Your task to perform on an android device: turn off javascript in the chrome app Image 0: 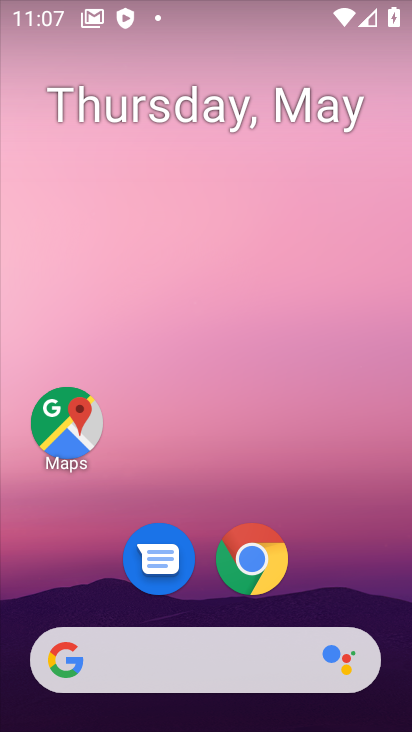
Step 0: click (248, 557)
Your task to perform on an android device: turn off javascript in the chrome app Image 1: 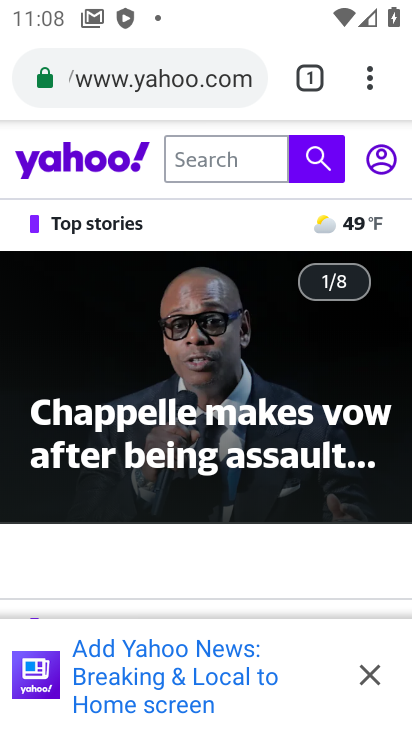
Step 1: click (369, 84)
Your task to perform on an android device: turn off javascript in the chrome app Image 2: 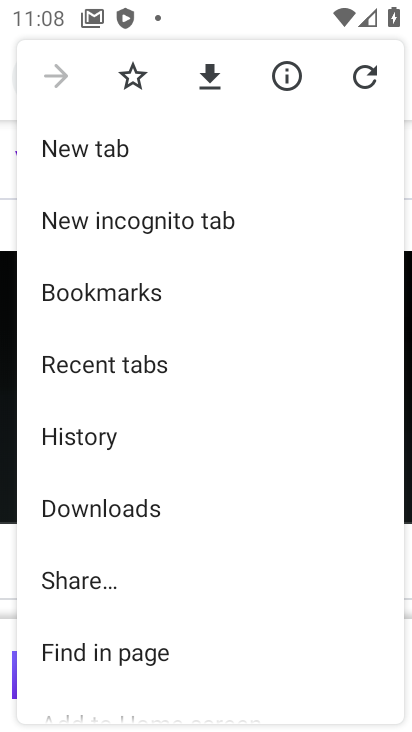
Step 2: drag from (120, 611) to (119, 180)
Your task to perform on an android device: turn off javascript in the chrome app Image 3: 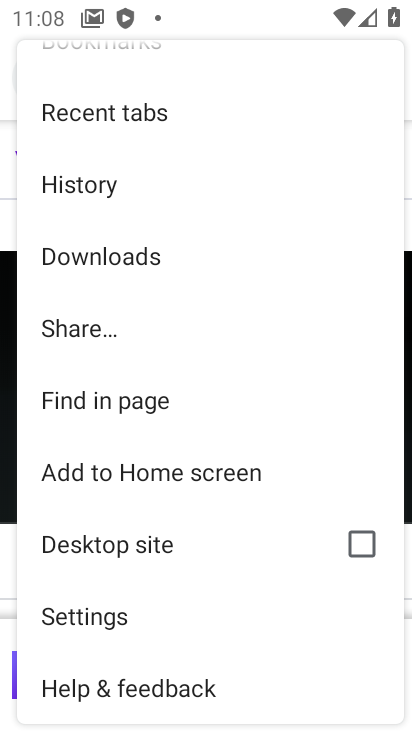
Step 3: click (90, 615)
Your task to perform on an android device: turn off javascript in the chrome app Image 4: 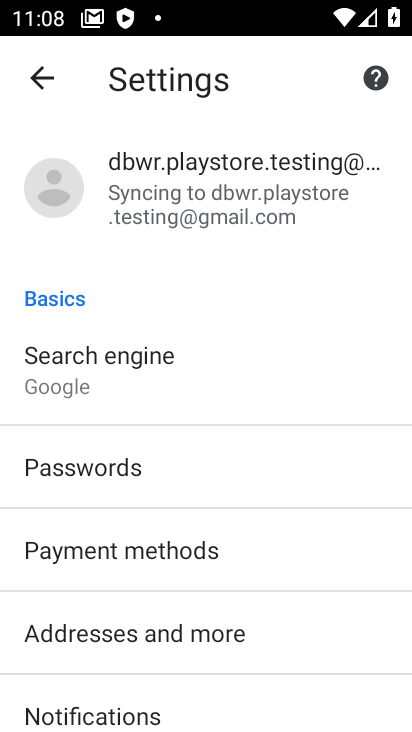
Step 4: drag from (136, 680) to (144, 392)
Your task to perform on an android device: turn off javascript in the chrome app Image 5: 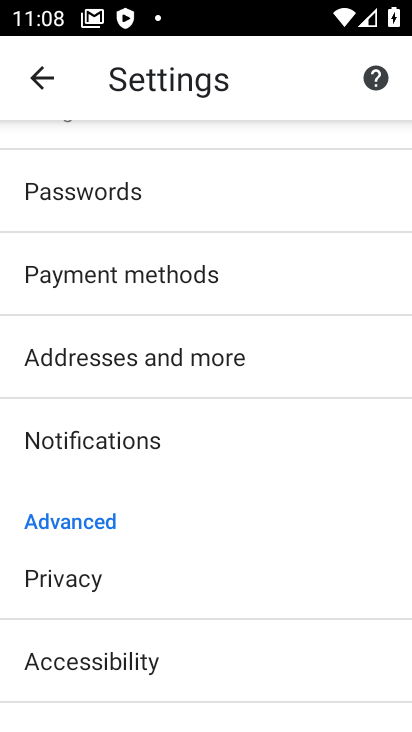
Step 5: drag from (162, 660) to (164, 318)
Your task to perform on an android device: turn off javascript in the chrome app Image 6: 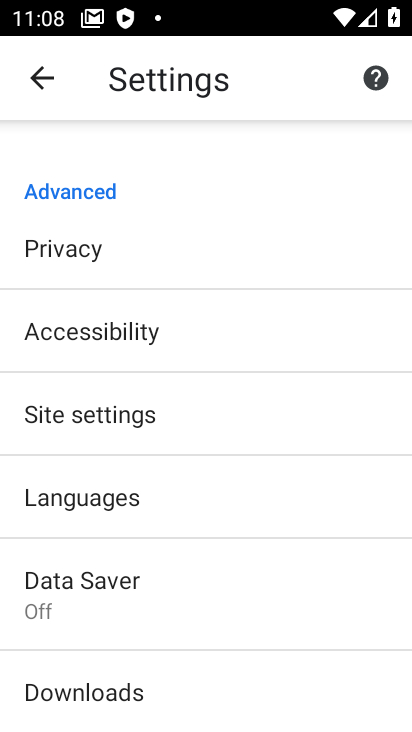
Step 6: click (107, 411)
Your task to perform on an android device: turn off javascript in the chrome app Image 7: 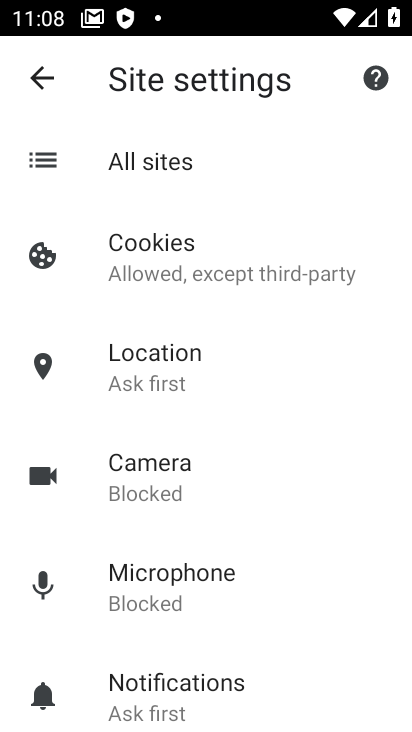
Step 7: drag from (183, 710) to (178, 443)
Your task to perform on an android device: turn off javascript in the chrome app Image 8: 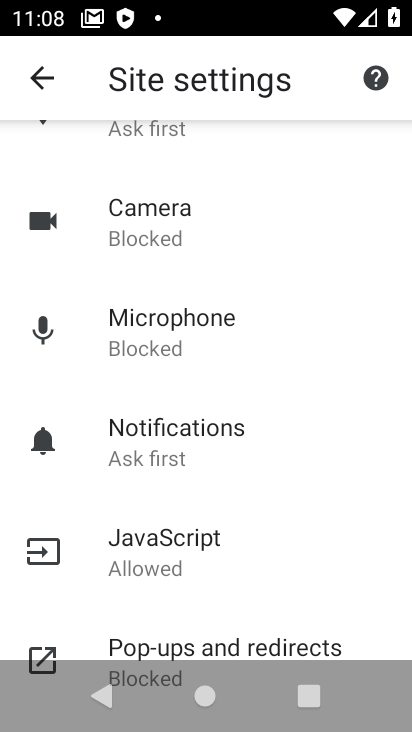
Step 8: click (144, 549)
Your task to perform on an android device: turn off javascript in the chrome app Image 9: 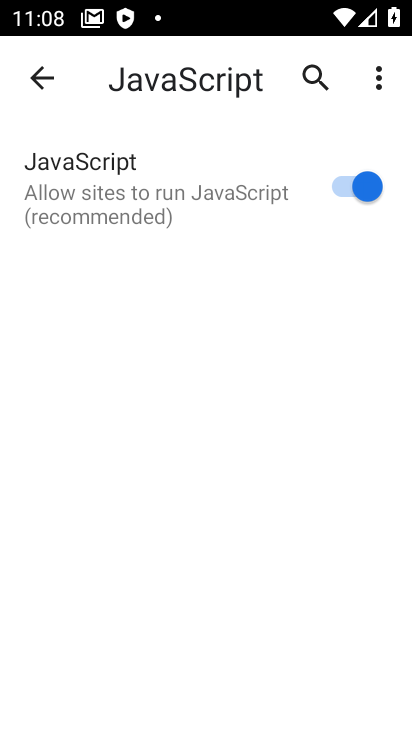
Step 9: click (345, 195)
Your task to perform on an android device: turn off javascript in the chrome app Image 10: 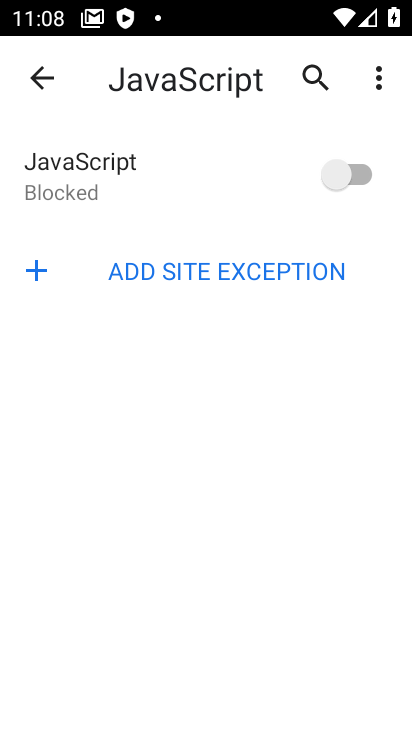
Step 10: task complete